Your task to perform on an android device: add a contact in the contacts app Image 0: 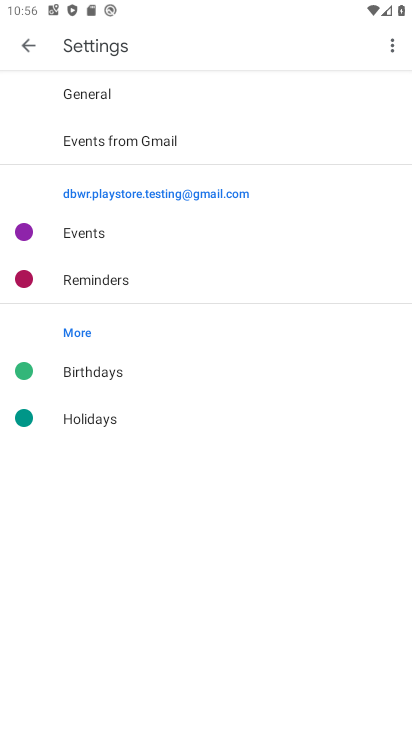
Step 0: press home button
Your task to perform on an android device: add a contact in the contacts app Image 1: 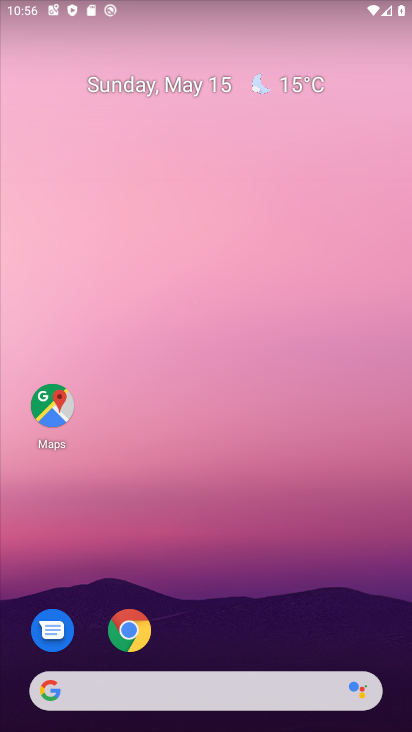
Step 1: drag from (178, 679) to (162, 211)
Your task to perform on an android device: add a contact in the contacts app Image 2: 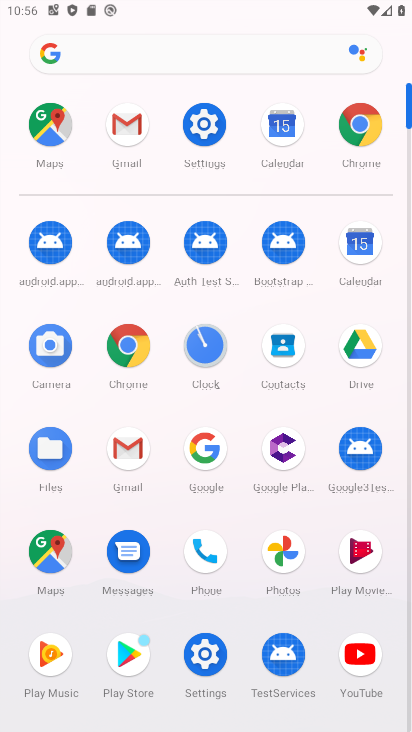
Step 2: click (275, 346)
Your task to perform on an android device: add a contact in the contacts app Image 3: 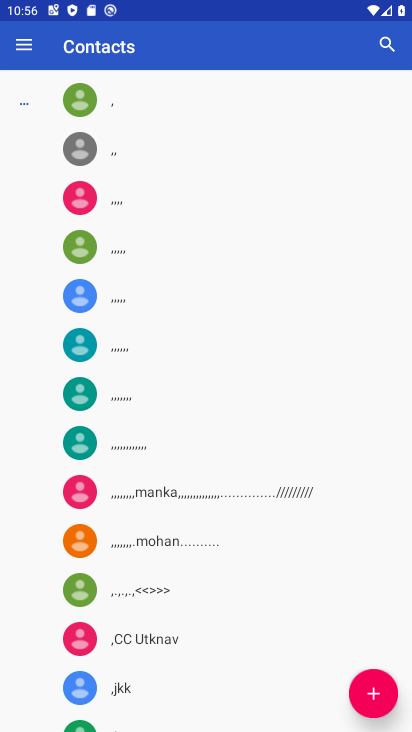
Step 3: click (375, 693)
Your task to perform on an android device: add a contact in the contacts app Image 4: 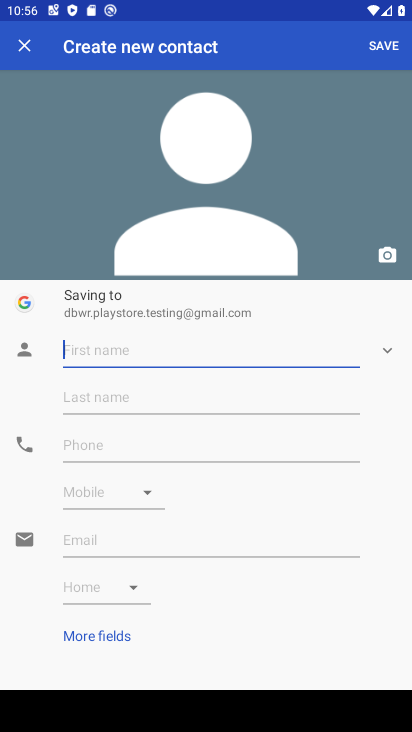
Step 4: type ""
Your task to perform on an android device: add a contact in the contacts app Image 5: 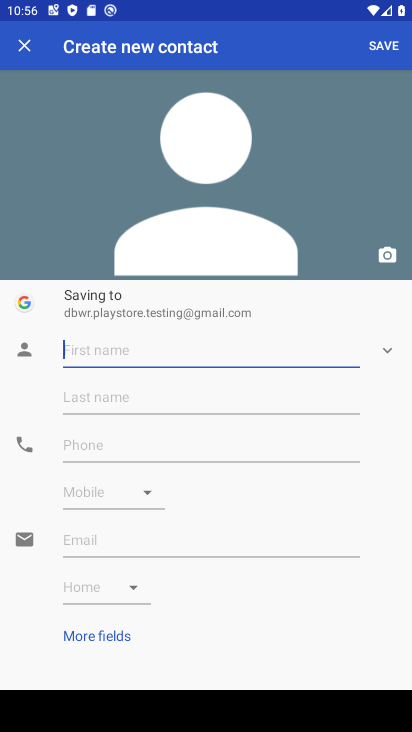
Step 5: type "torch"
Your task to perform on an android device: add a contact in the contacts app Image 6: 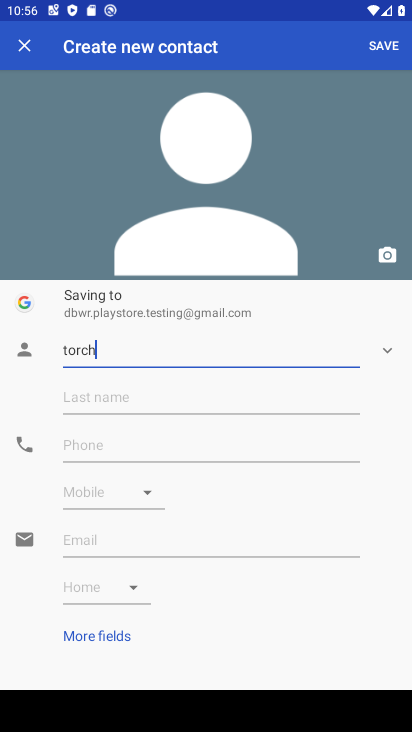
Step 6: click (82, 445)
Your task to perform on an android device: add a contact in the contacts app Image 7: 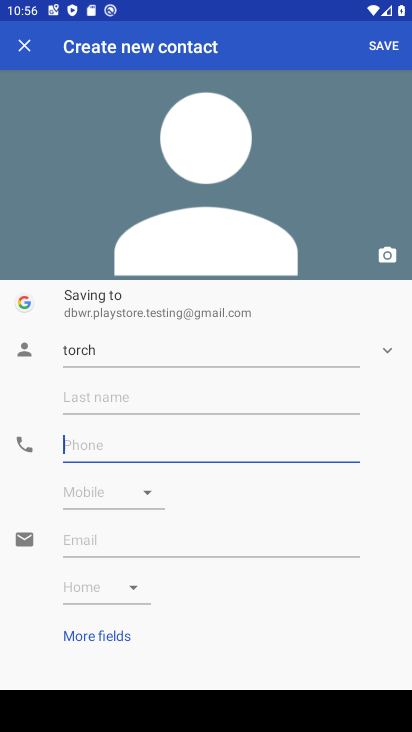
Step 7: type "678788"
Your task to perform on an android device: add a contact in the contacts app Image 8: 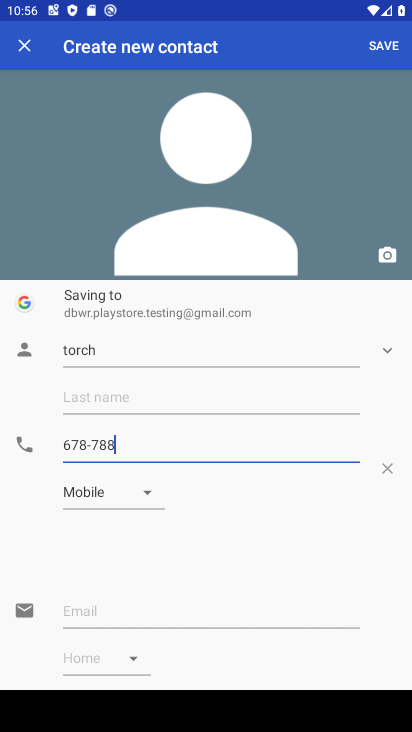
Step 8: type ""
Your task to perform on an android device: add a contact in the contacts app Image 9: 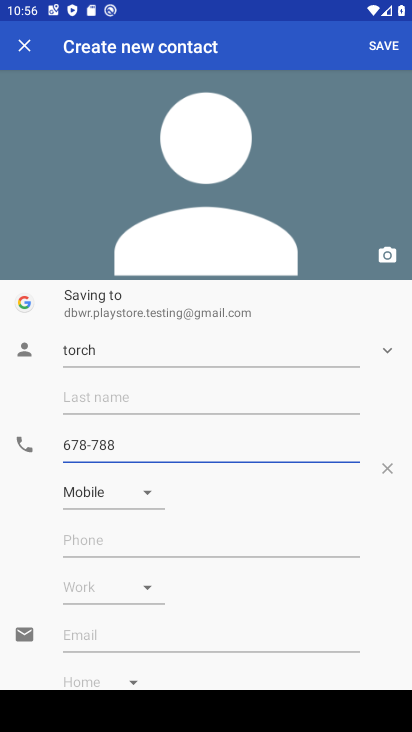
Step 9: click (386, 44)
Your task to perform on an android device: add a contact in the contacts app Image 10: 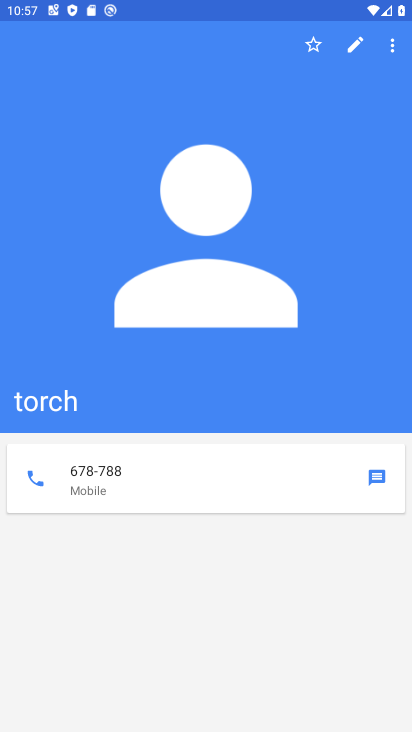
Step 10: task complete